Your task to perform on an android device: change text size in settings app Image 0: 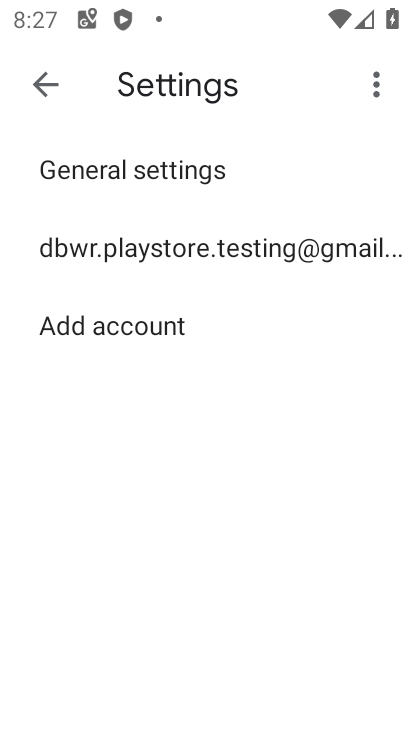
Step 0: press back button
Your task to perform on an android device: change text size in settings app Image 1: 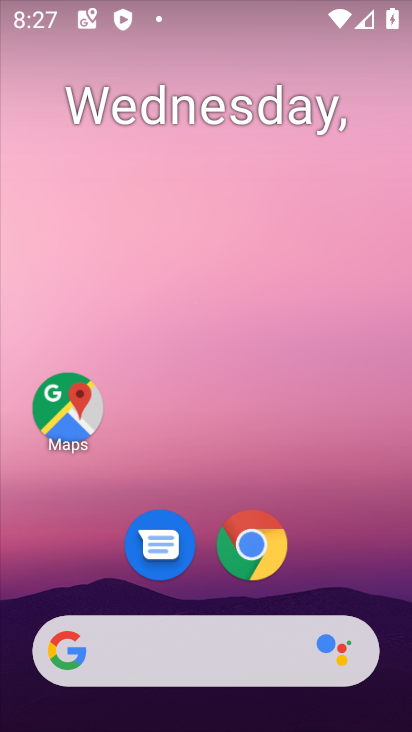
Step 1: drag from (181, 487) to (270, 19)
Your task to perform on an android device: change text size in settings app Image 2: 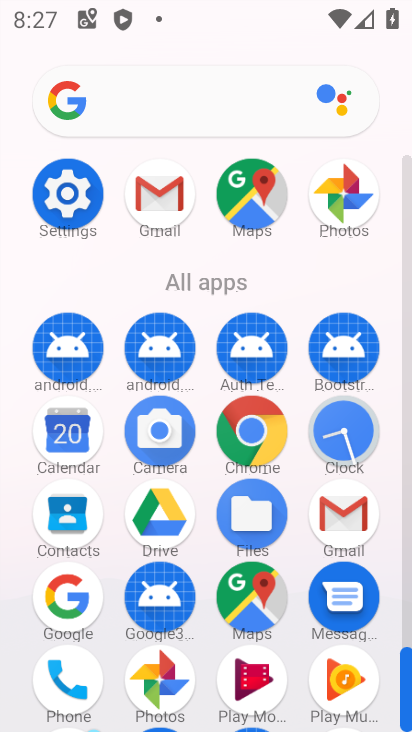
Step 2: click (61, 191)
Your task to perform on an android device: change text size in settings app Image 3: 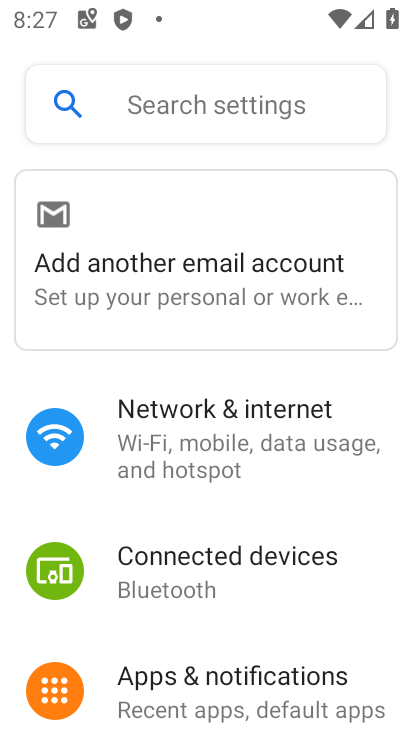
Step 3: click (172, 96)
Your task to perform on an android device: change text size in settings app Image 4: 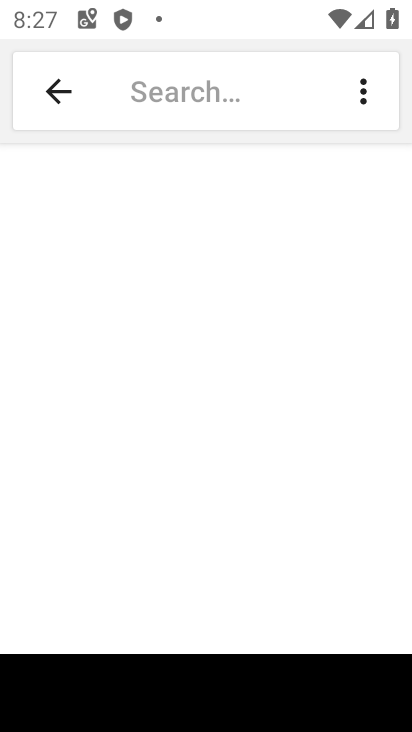
Step 4: type "text size"
Your task to perform on an android device: change text size in settings app Image 5: 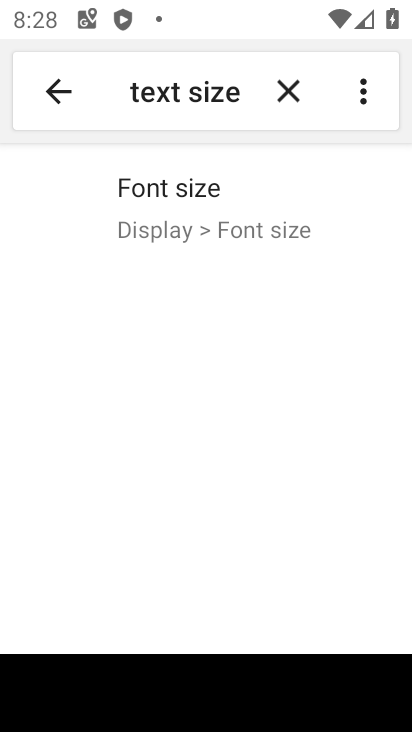
Step 5: click (207, 215)
Your task to perform on an android device: change text size in settings app Image 6: 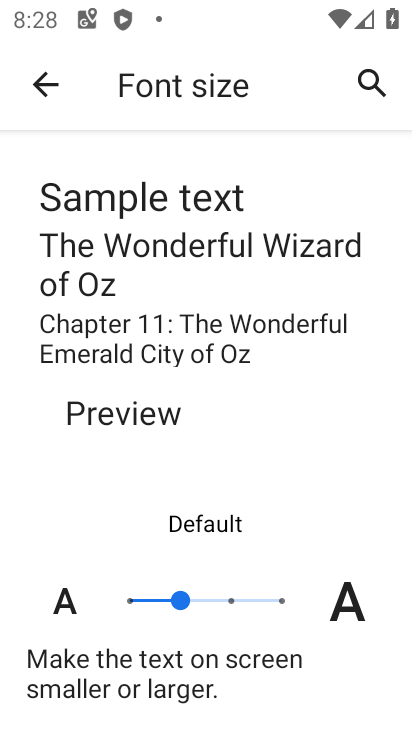
Step 6: click (199, 595)
Your task to perform on an android device: change text size in settings app Image 7: 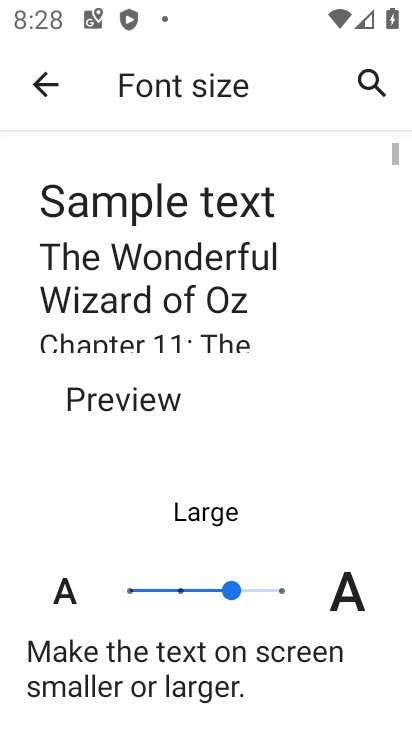
Step 7: task complete